Your task to perform on an android device: add a contact in the contacts app Image 0: 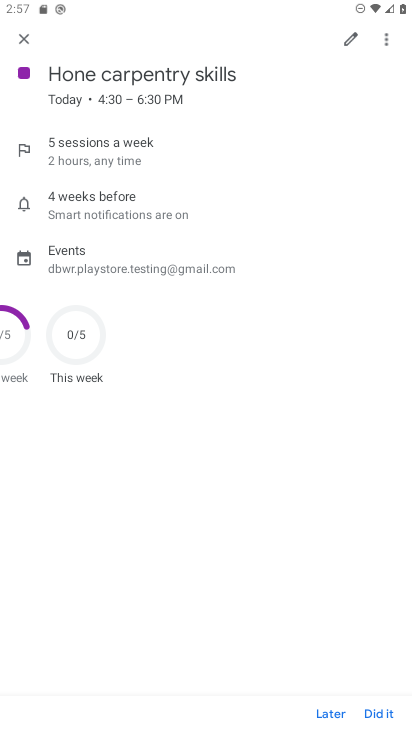
Step 0: press home button
Your task to perform on an android device: add a contact in the contacts app Image 1: 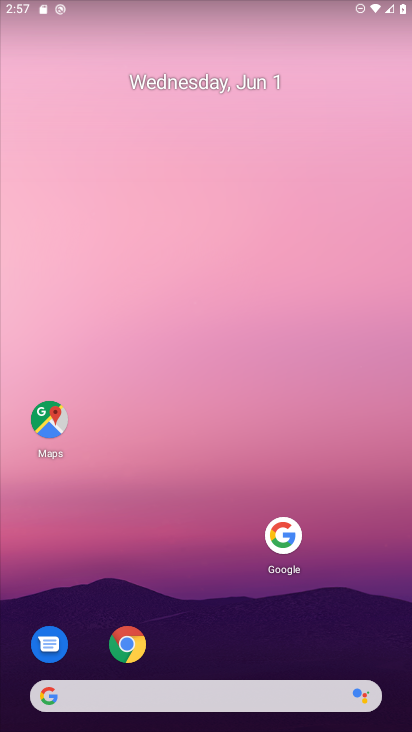
Step 1: drag from (233, 714) to (318, 385)
Your task to perform on an android device: add a contact in the contacts app Image 2: 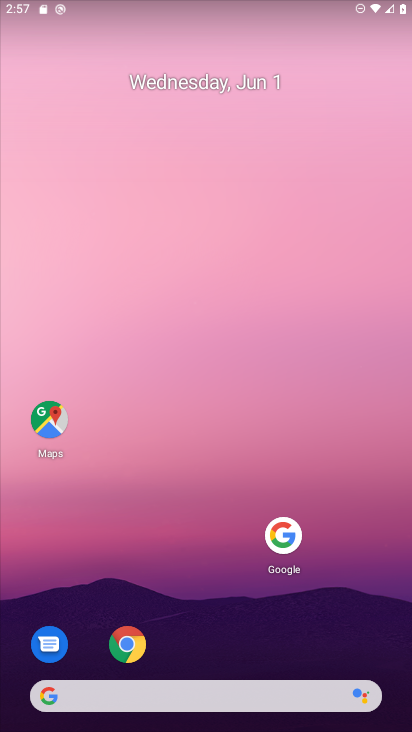
Step 2: drag from (188, 705) to (320, 255)
Your task to perform on an android device: add a contact in the contacts app Image 3: 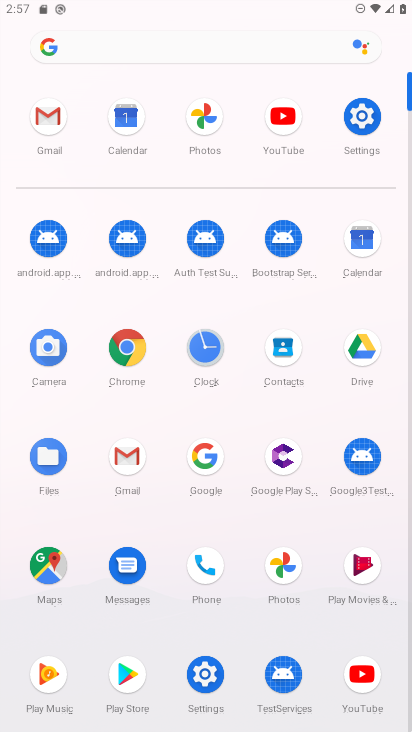
Step 3: click (284, 346)
Your task to perform on an android device: add a contact in the contacts app Image 4: 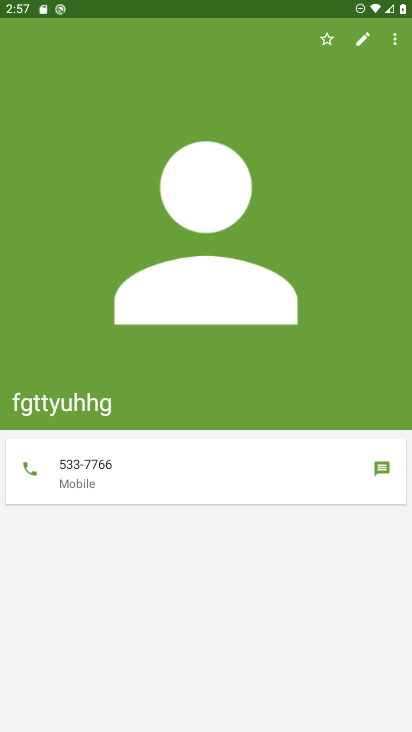
Step 4: press back button
Your task to perform on an android device: add a contact in the contacts app Image 5: 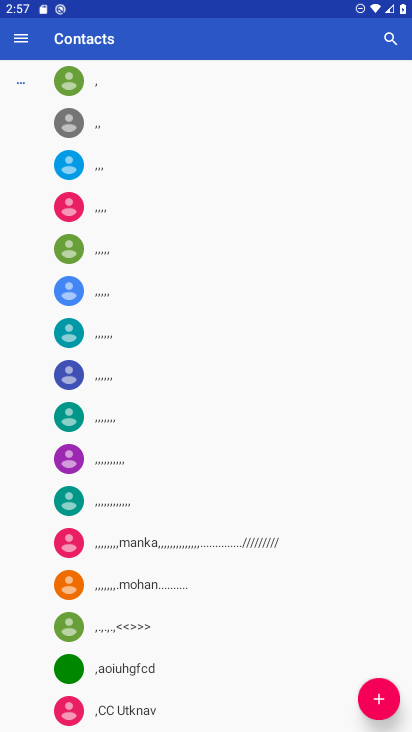
Step 5: click (376, 708)
Your task to perform on an android device: add a contact in the contacts app Image 6: 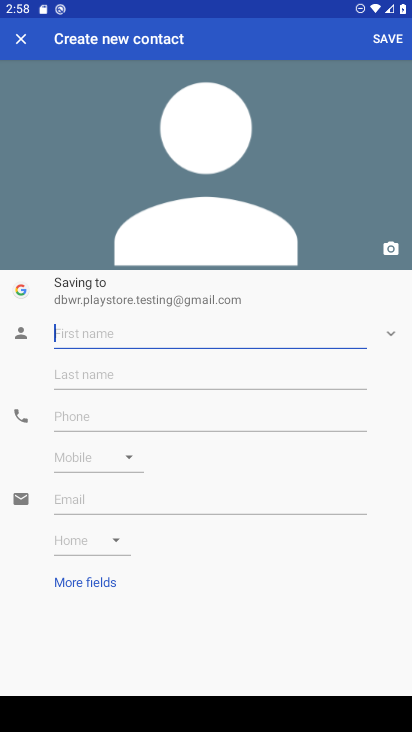
Step 6: type "nhhgff"
Your task to perform on an android device: add a contact in the contacts app Image 7: 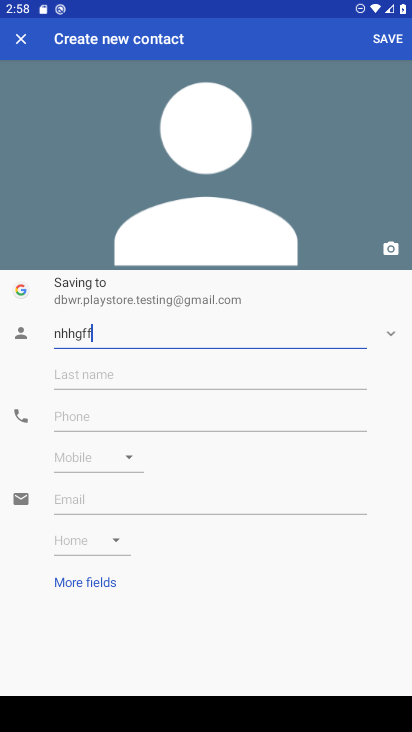
Step 7: click (149, 406)
Your task to perform on an android device: add a contact in the contacts app Image 8: 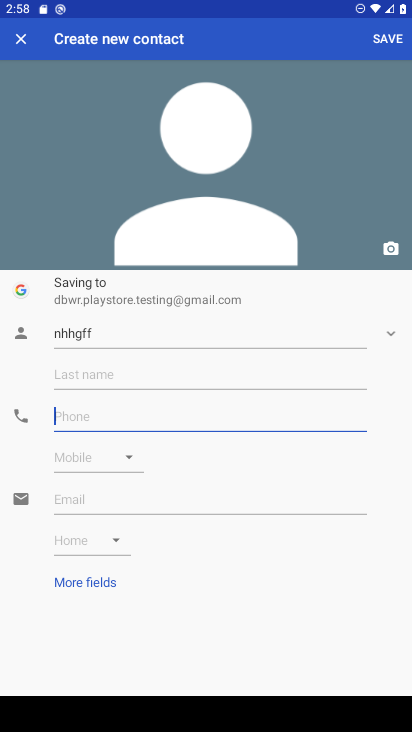
Step 8: type "354434"
Your task to perform on an android device: add a contact in the contacts app Image 9: 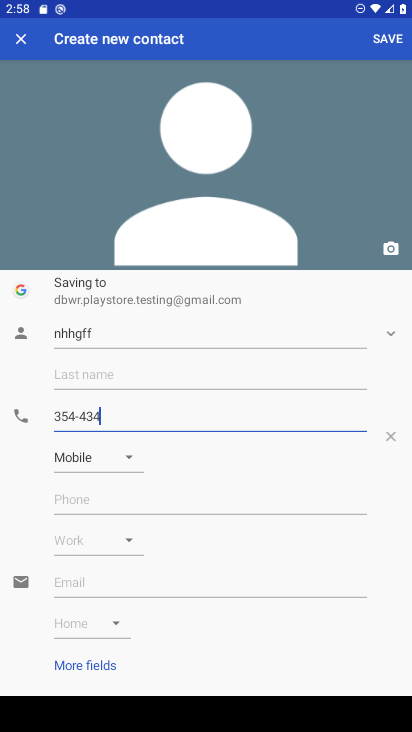
Step 9: click (380, 42)
Your task to perform on an android device: add a contact in the contacts app Image 10: 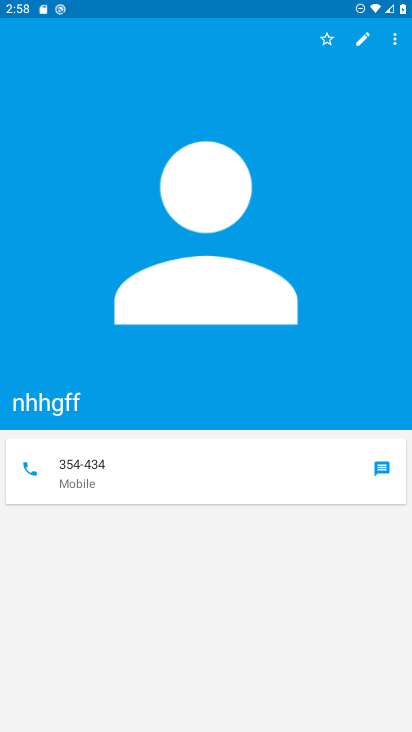
Step 10: task complete